Your task to perform on an android device: turn on sleep mode Image 0: 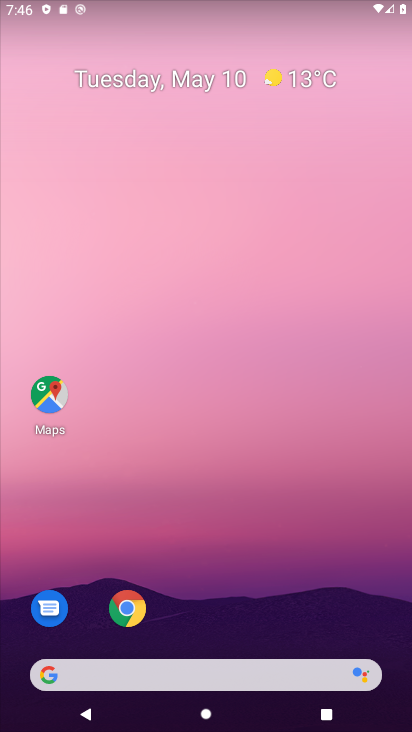
Step 0: press home button
Your task to perform on an android device: turn on sleep mode Image 1: 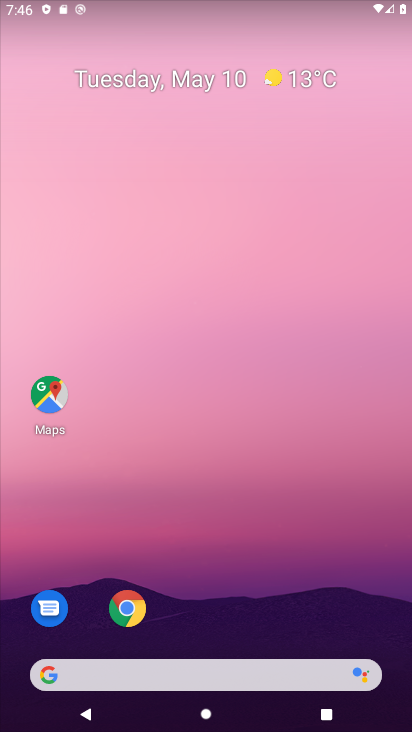
Step 1: drag from (193, 678) to (336, 106)
Your task to perform on an android device: turn on sleep mode Image 2: 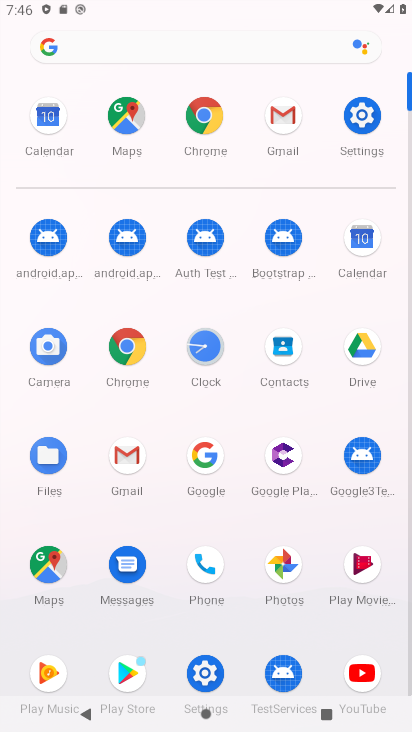
Step 2: click (361, 113)
Your task to perform on an android device: turn on sleep mode Image 3: 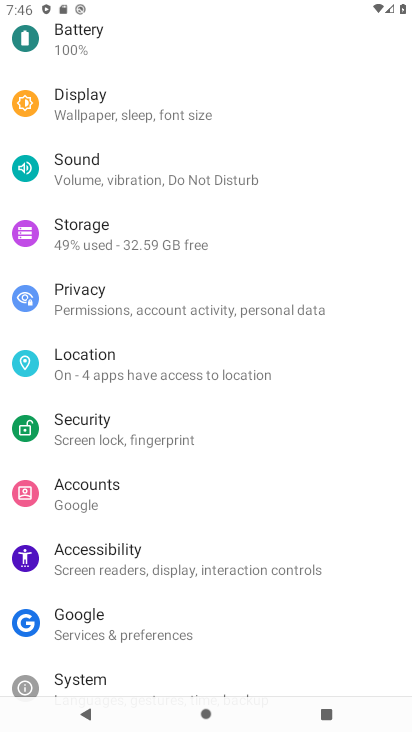
Step 3: click (174, 118)
Your task to perform on an android device: turn on sleep mode Image 4: 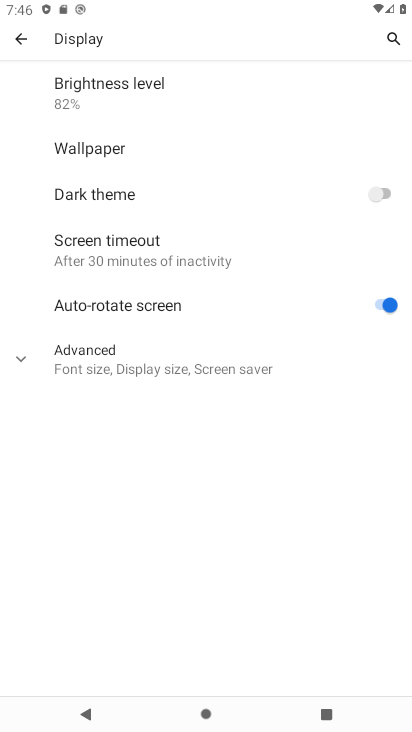
Step 4: click (82, 362)
Your task to perform on an android device: turn on sleep mode Image 5: 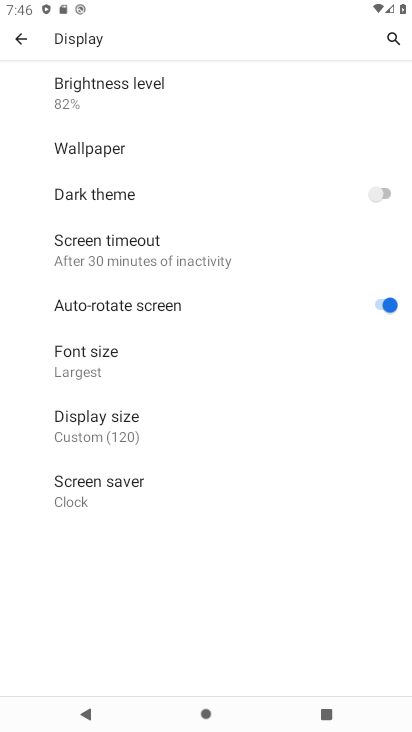
Step 5: task complete